Your task to perform on an android device: Is it going to rain today? Image 0: 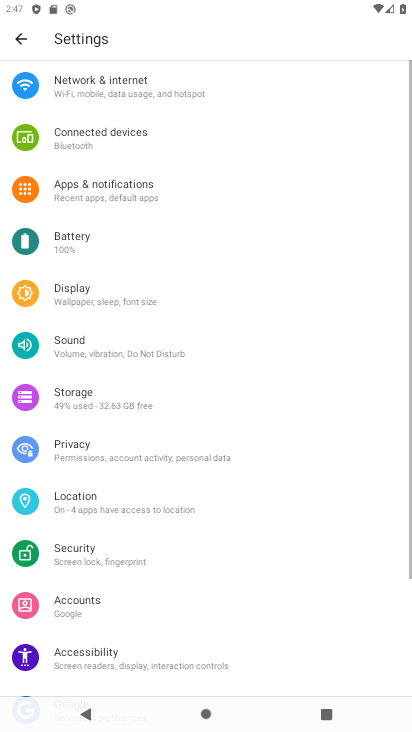
Step 0: press home button
Your task to perform on an android device: Is it going to rain today? Image 1: 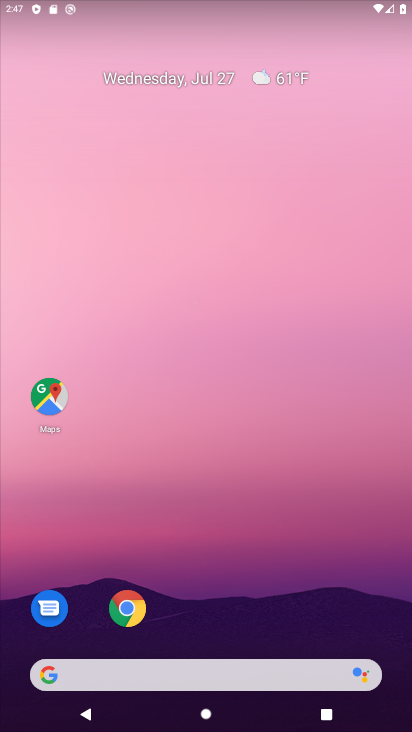
Step 1: click (178, 668)
Your task to perform on an android device: Is it going to rain today? Image 2: 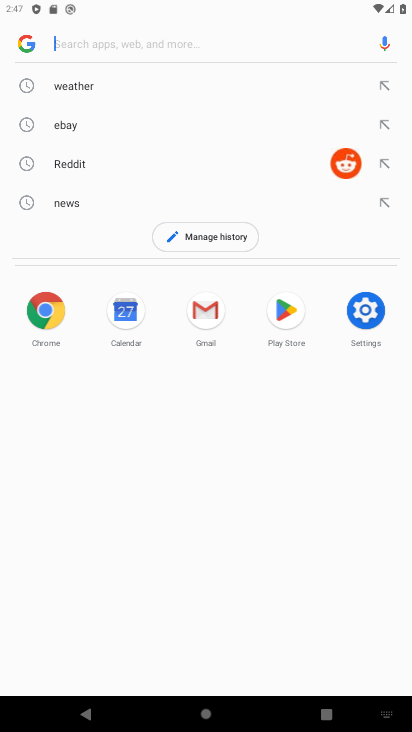
Step 2: type "is it going to rain today"
Your task to perform on an android device: Is it going to rain today? Image 3: 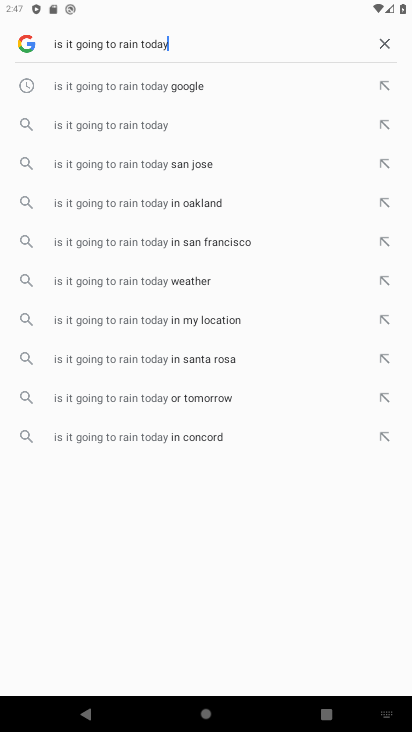
Step 3: click (273, 114)
Your task to perform on an android device: Is it going to rain today? Image 4: 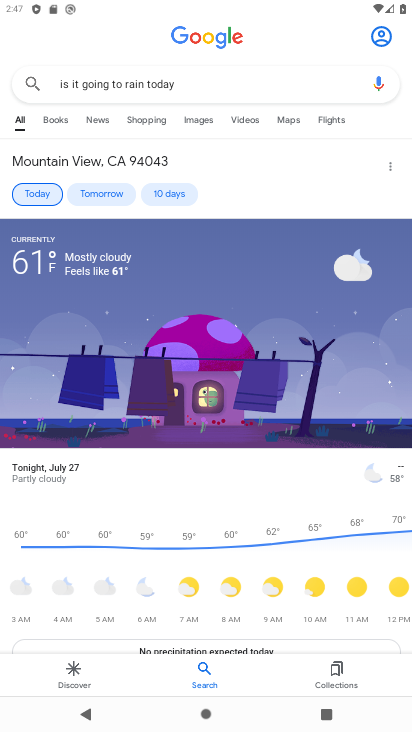
Step 4: task complete